Your task to perform on an android device: Open Google Chrome Image 0: 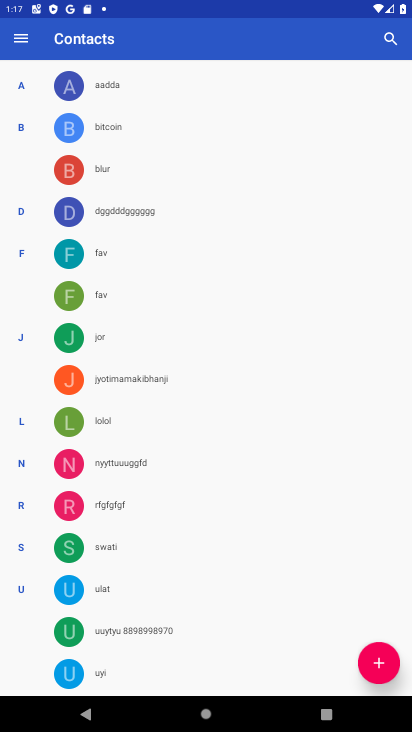
Step 0: press home button
Your task to perform on an android device: Open Google Chrome Image 1: 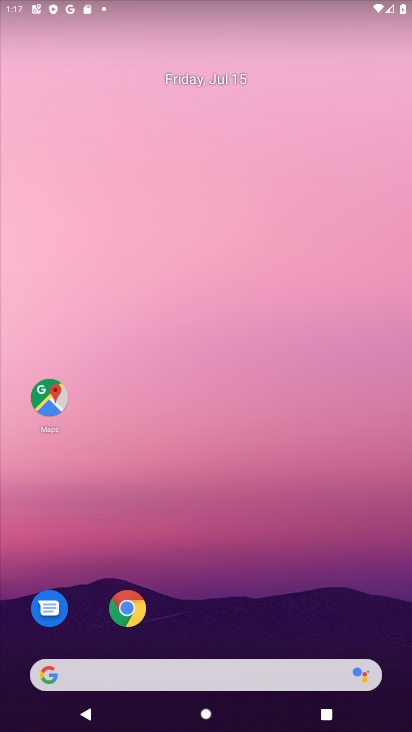
Step 1: click (116, 603)
Your task to perform on an android device: Open Google Chrome Image 2: 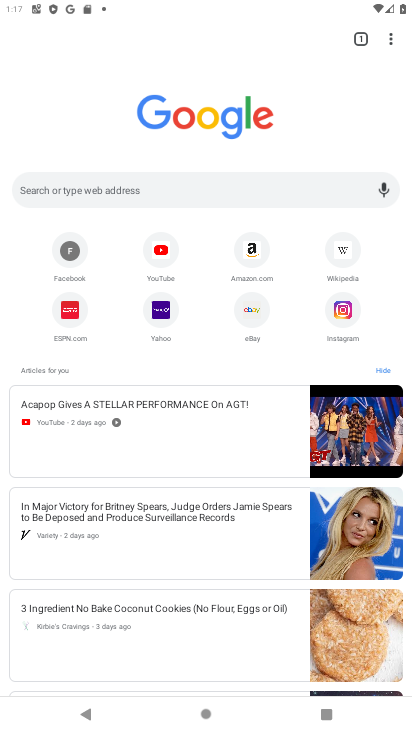
Step 2: task complete